Your task to perform on an android device: toggle priority inbox in the gmail app Image 0: 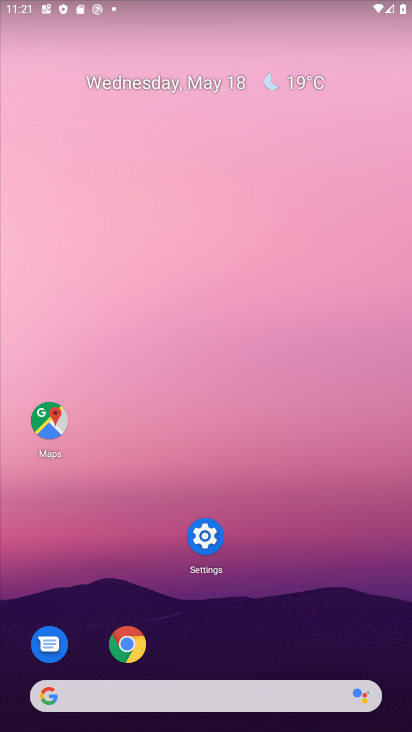
Step 0: drag from (325, 632) to (251, 61)
Your task to perform on an android device: toggle priority inbox in the gmail app Image 1: 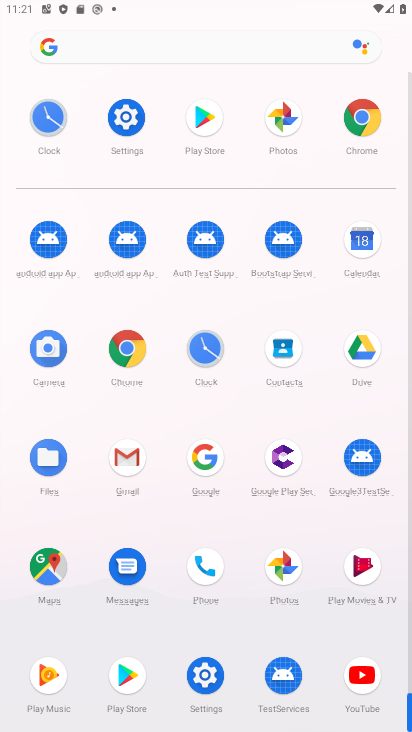
Step 1: click (131, 459)
Your task to perform on an android device: toggle priority inbox in the gmail app Image 2: 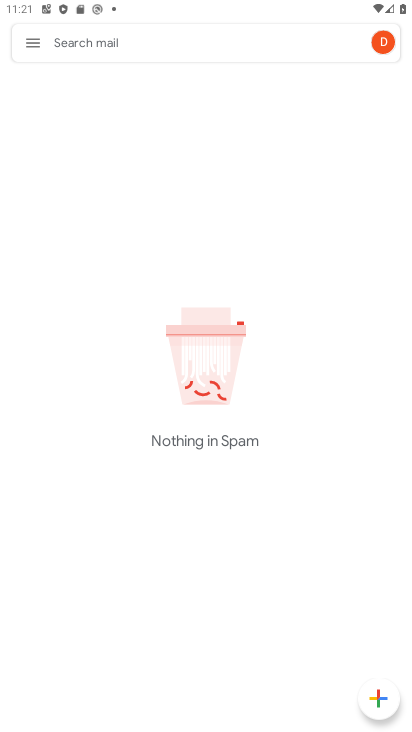
Step 2: click (29, 39)
Your task to perform on an android device: toggle priority inbox in the gmail app Image 3: 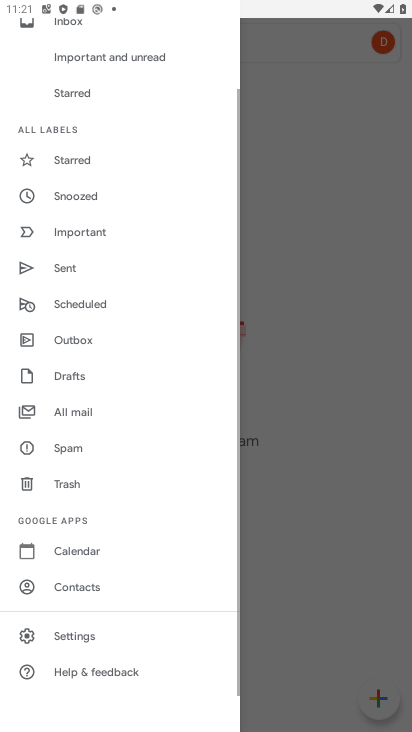
Step 3: drag from (168, 650) to (183, 265)
Your task to perform on an android device: toggle priority inbox in the gmail app Image 4: 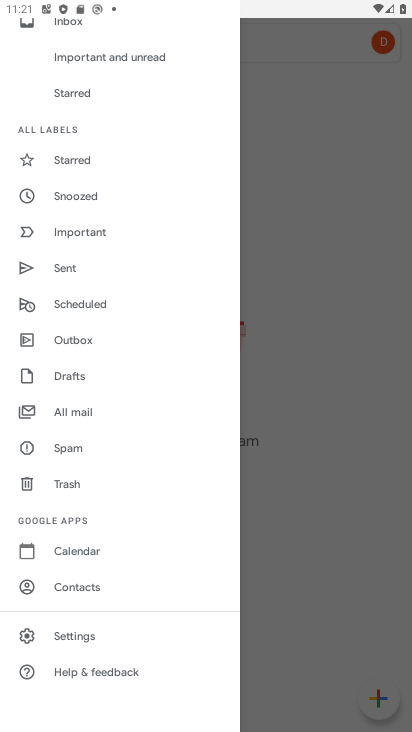
Step 4: click (113, 632)
Your task to perform on an android device: toggle priority inbox in the gmail app Image 5: 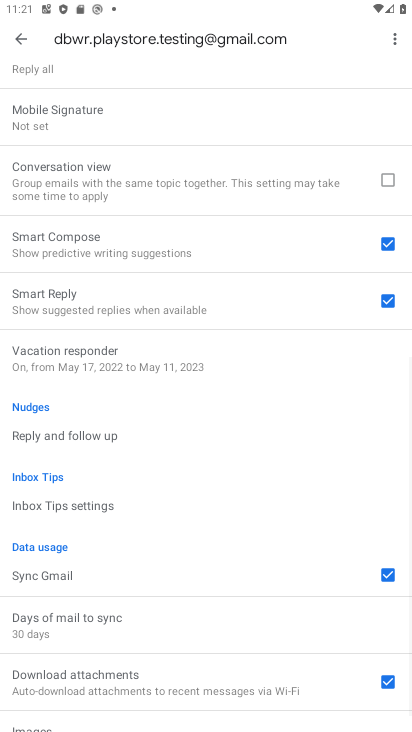
Step 5: drag from (209, 126) to (252, 630)
Your task to perform on an android device: toggle priority inbox in the gmail app Image 6: 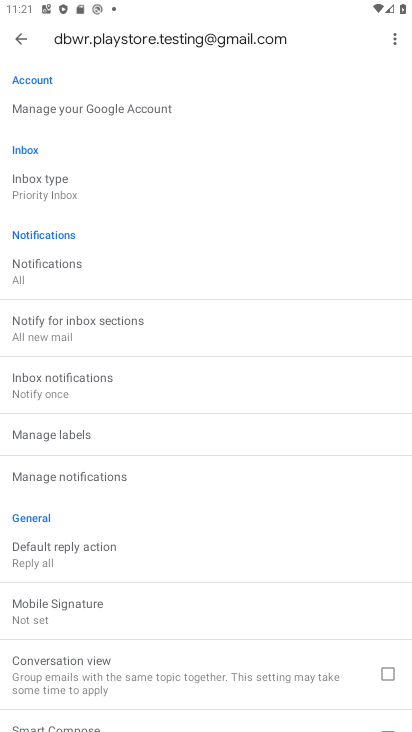
Step 6: drag from (149, 277) to (207, 511)
Your task to perform on an android device: toggle priority inbox in the gmail app Image 7: 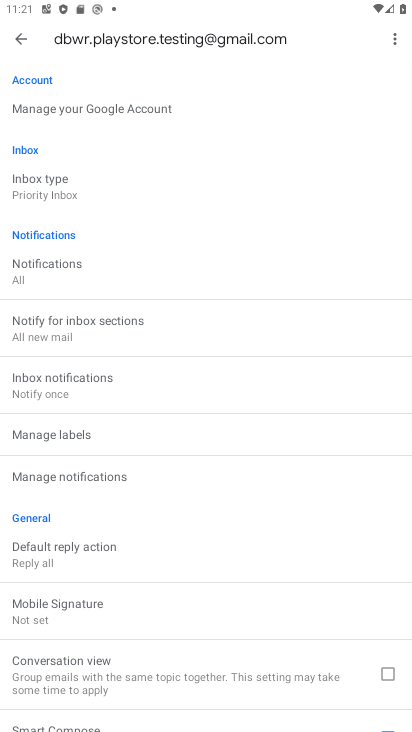
Step 7: click (63, 182)
Your task to perform on an android device: toggle priority inbox in the gmail app Image 8: 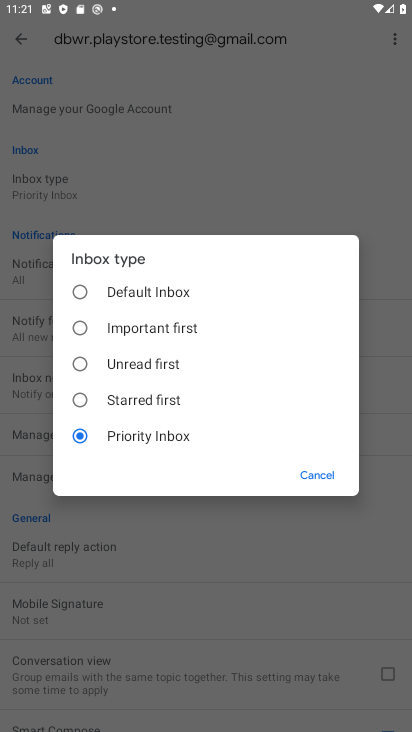
Step 8: click (145, 288)
Your task to perform on an android device: toggle priority inbox in the gmail app Image 9: 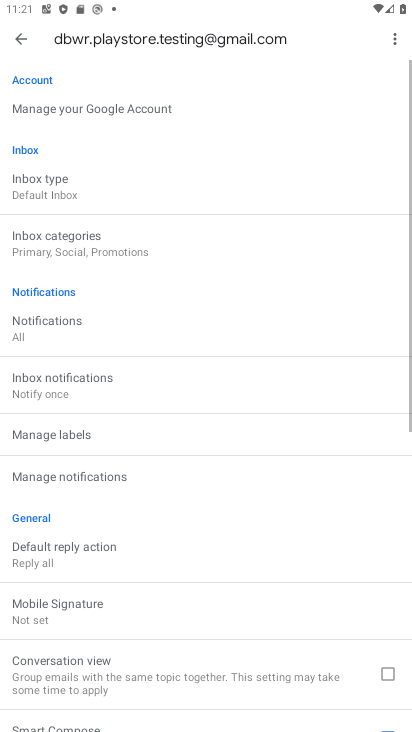
Step 9: task complete